Your task to perform on an android device: search for starred emails in the gmail app Image 0: 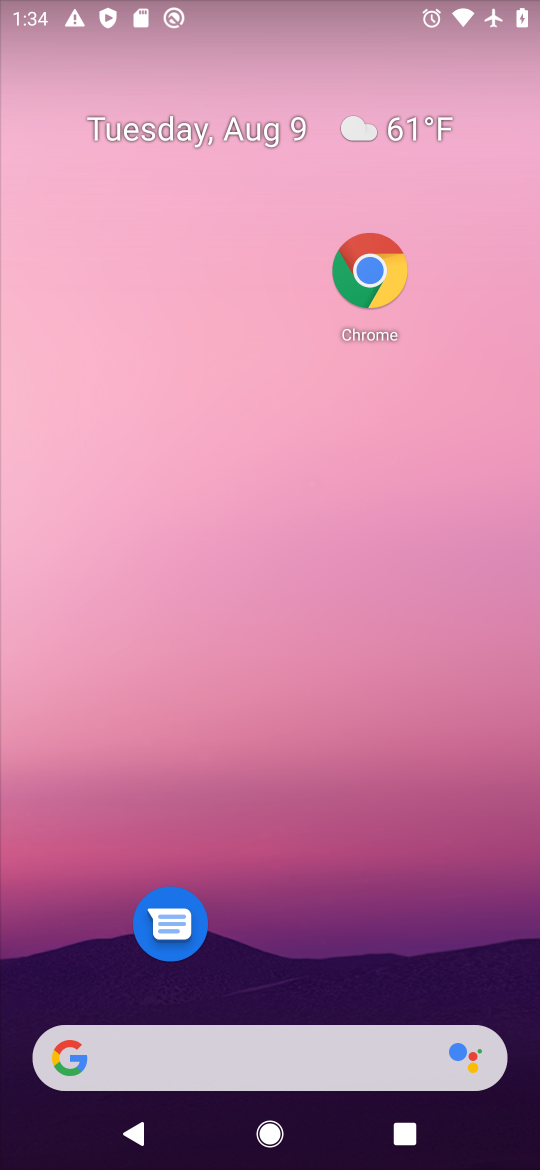
Step 0: drag from (311, 992) to (202, 225)
Your task to perform on an android device: search for starred emails in the gmail app Image 1: 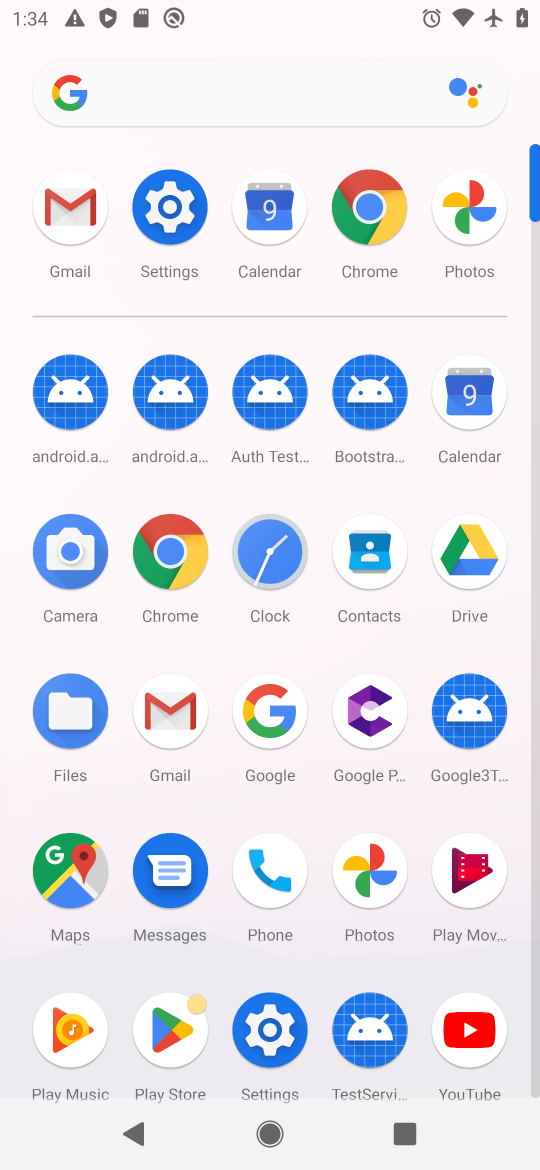
Step 1: click (192, 711)
Your task to perform on an android device: search for starred emails in the gmail app Image 2: 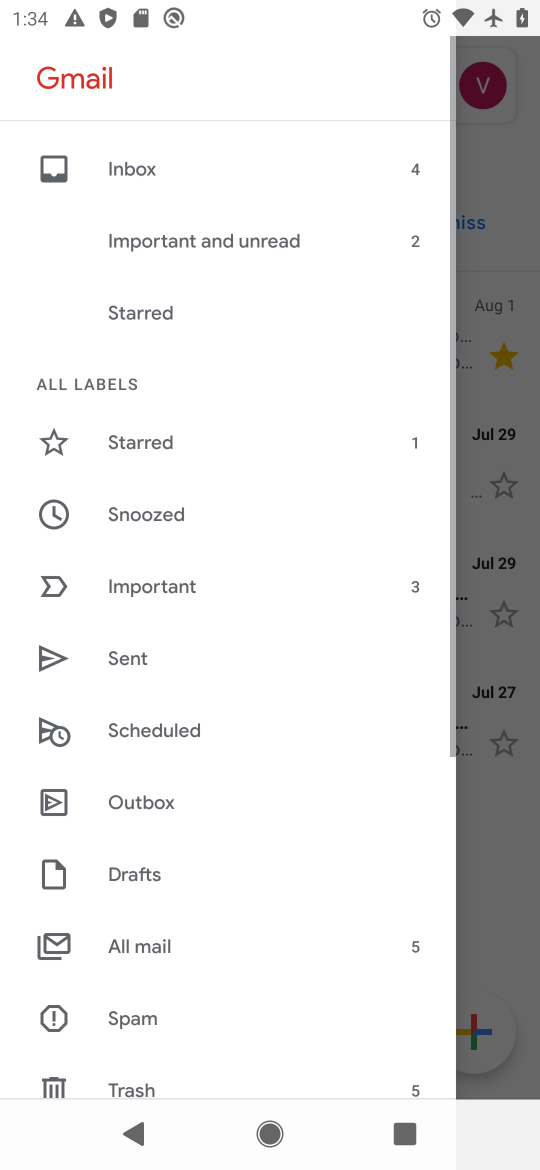
Step 2: task complete